Your task to perform on an android device: Open Chrome and go to the settings page Image 0: 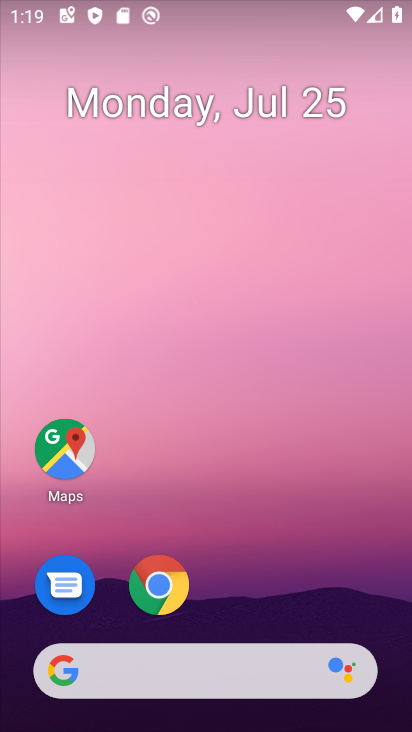
Step 0: click (162, 582)
Your task to perform on an android device: Open Chrome and go to the settings page Image 1: 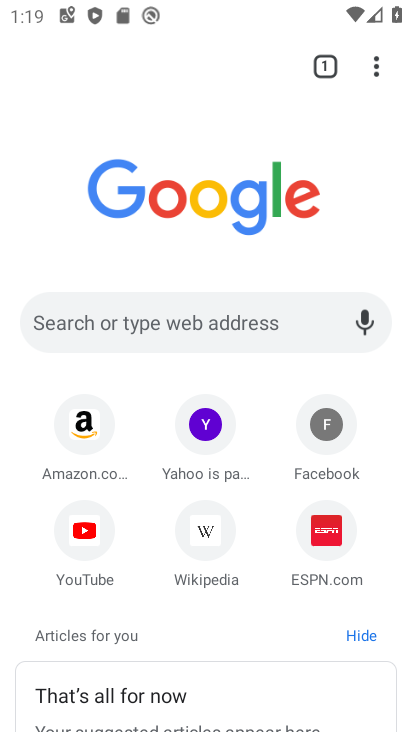
Step 1: click (374, 58)
Your task to perform on an android device: Open Chrome and go to the settings page Image 2: 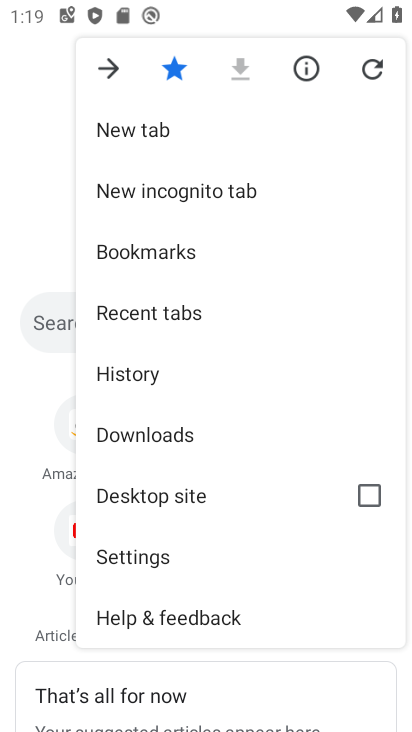
Step 2: click (151, 552)
Your task to perform on an android device: Open Chrome and go to the settings page Image 3: 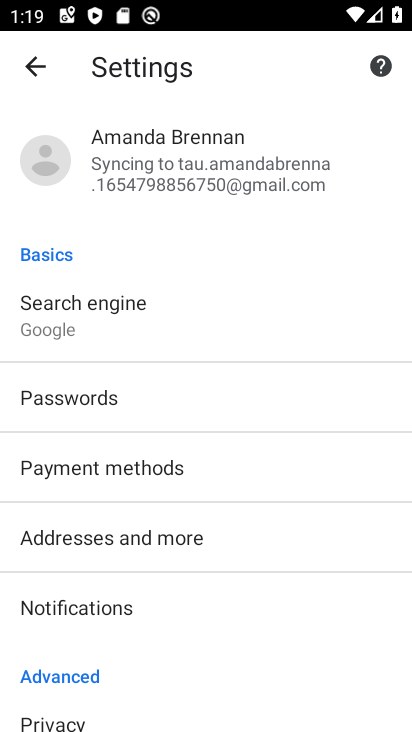
Step 3: task complete